Your task to perform on an android device: Search for pizza restaurants on Maps Image 0: 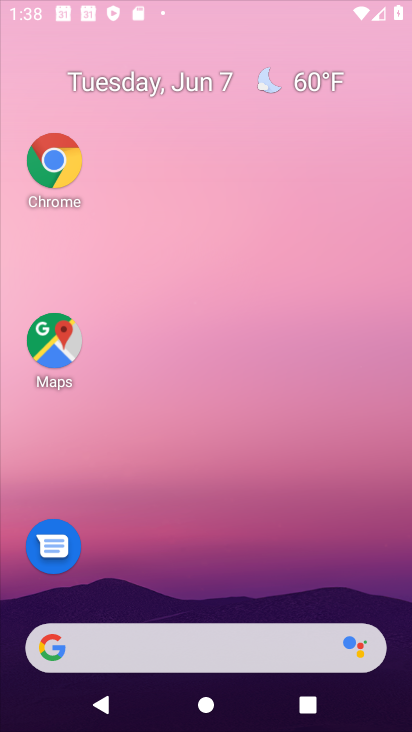
Step 0: drag from (190, 570) to (119, 15)
Your task to perform on an android device: Search for pizza restaurants on Maps Image 1: 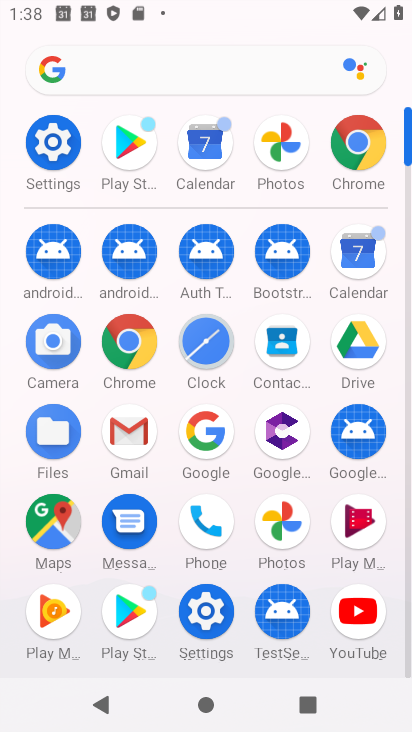
Step 1: click (44, 513)
Your task to perform on an android device: Search for pizza restaurants on Maps Image 2: 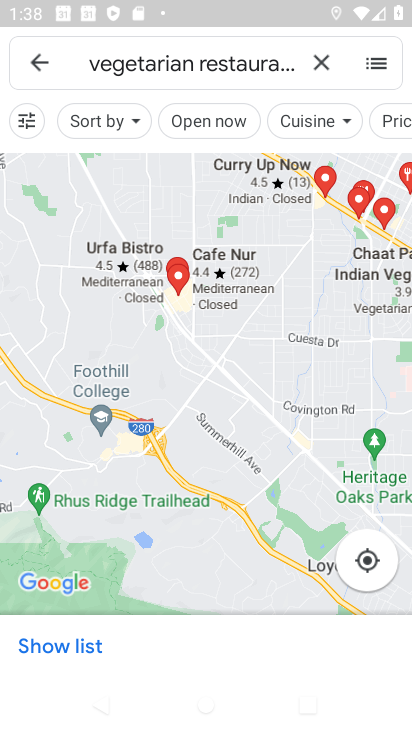
Step 2: click (317, 53)
Your task to perform on an android device: Search for pizza restaurants on Maps Image 3: 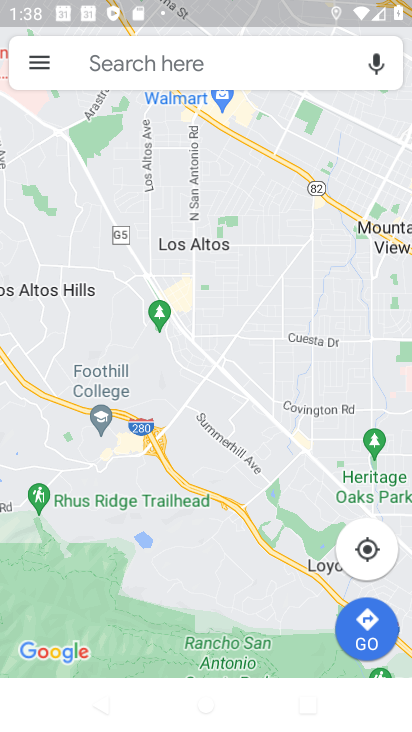
Step 3: click (126, 76)
Your task to perform on an android device: Search for pizza restaurants on Maps Image 4: 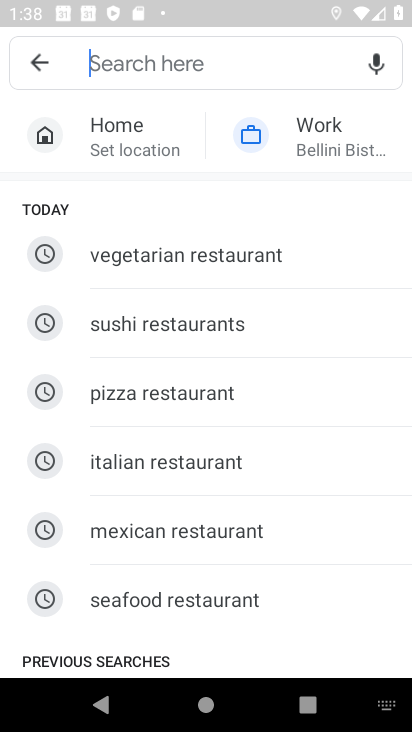
Step 4: click (122, 390)
Your task to perform on an android device: Search for pizza restaurants on Maps Image 5: 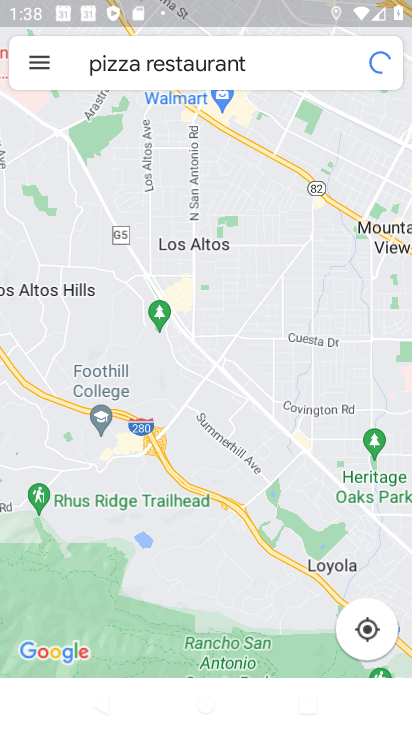
Step 5: task complete